Your task to perform on an android device: Show me popular games on the Play Store Image 0: 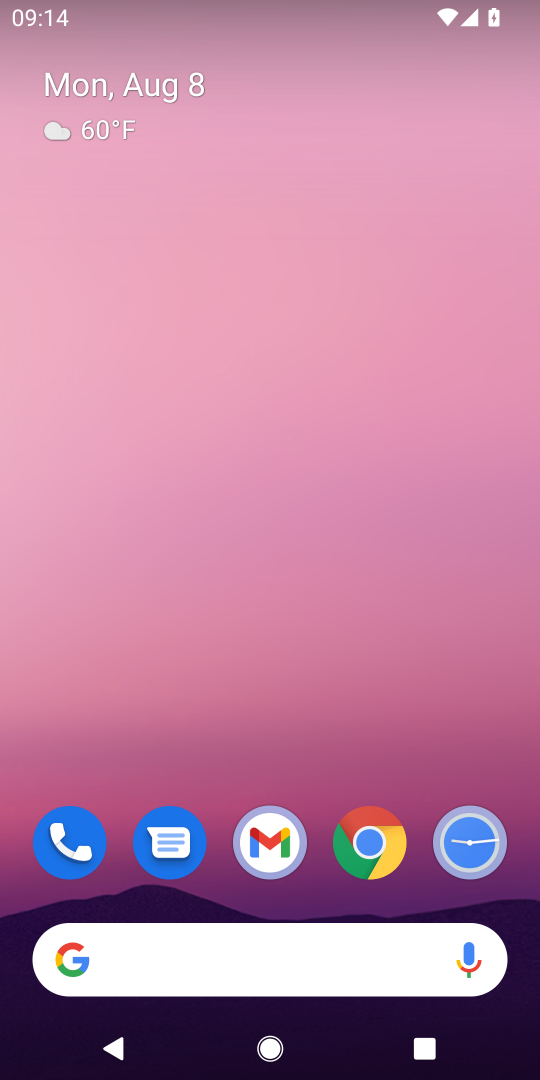
Step 0: drag from (267, 765) to (263, 5)
Your task to perform on an android device: Show me popular games on the Play Store Image 1: 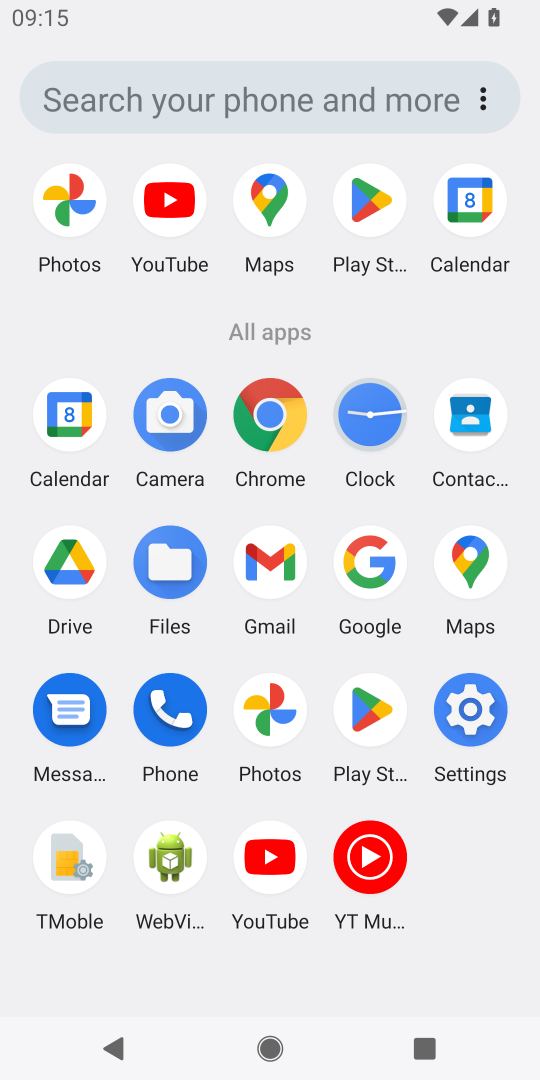
Step 1: click (370, 703)
Your task to perform on an android device: Show me popular games on the Play Store Image 2: 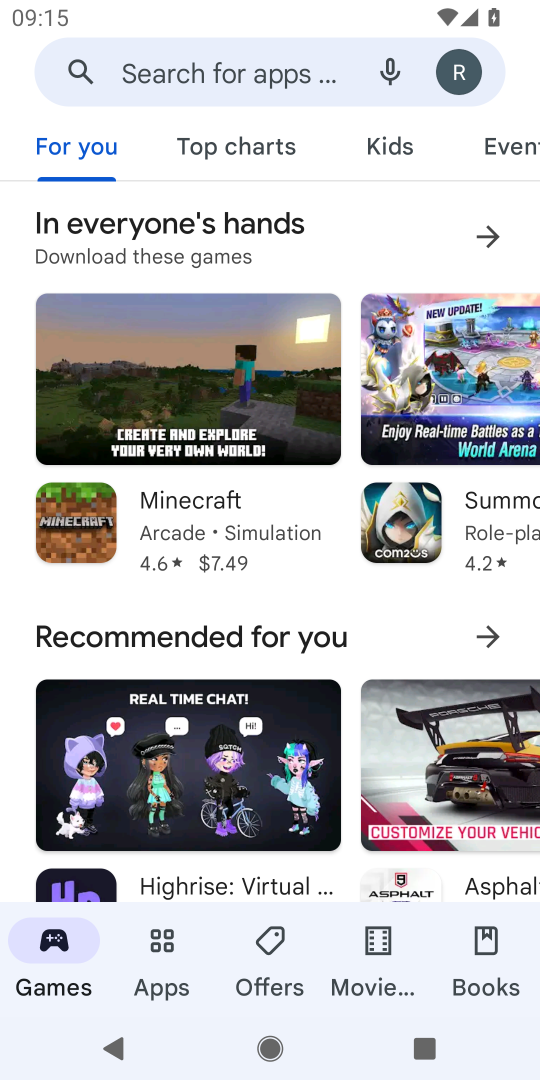
Step 2: click (212, 163)
Your task to perform on an android device: Show me popular games on the Play Store Image 3: 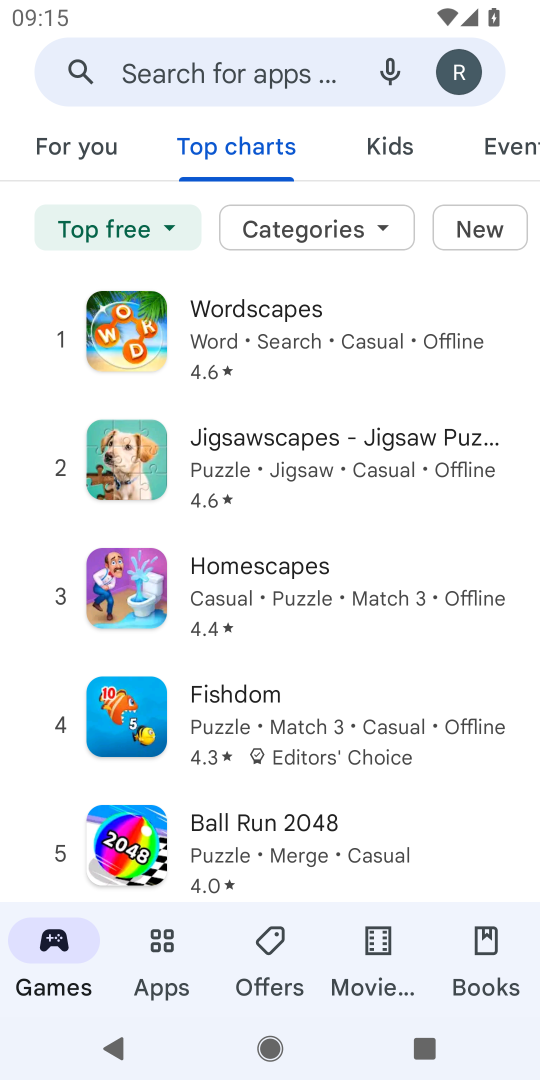
Step 3: task complete